Your task to perform on an android device: Go to CNN.com Image 0: 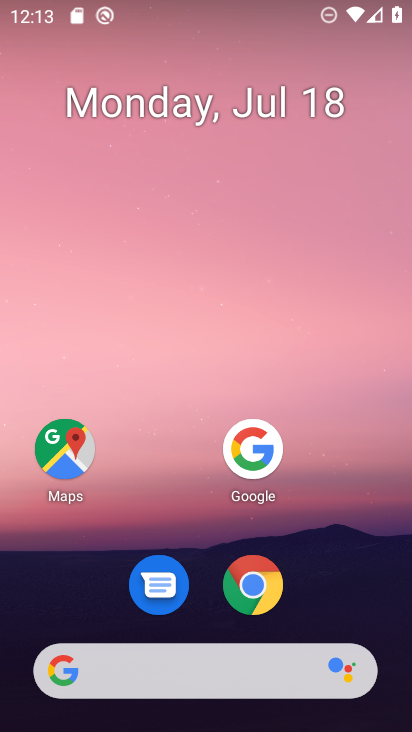
Step 0: click (268, 585)
Your task to perform on an android device: Go to CNN.com Image 1: 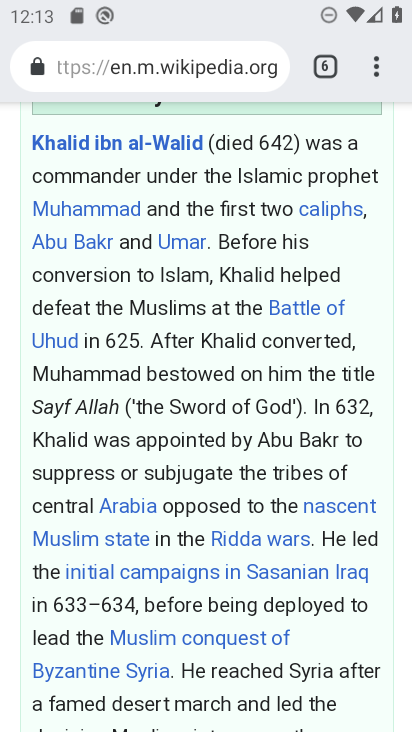
Step 1: drag from (373, 66) to (182, 136)
Your task to perform on an android device: Go to CNN.com Image 2: 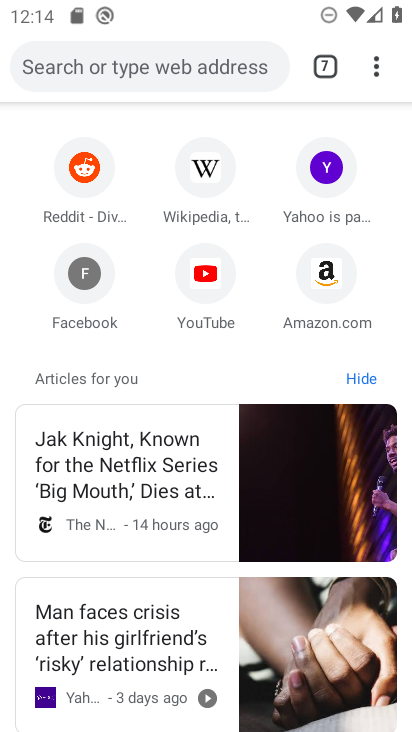
Step 2: click (175, 71)
Your task to perform on an android device: Go to CNN.com Image 3: 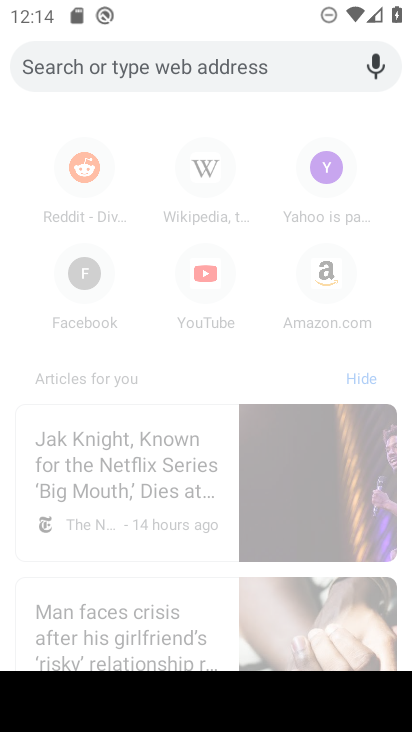
Step 3: type "cnn.com"
Your task to perform on an android device: Go to CNN.com Image 4: 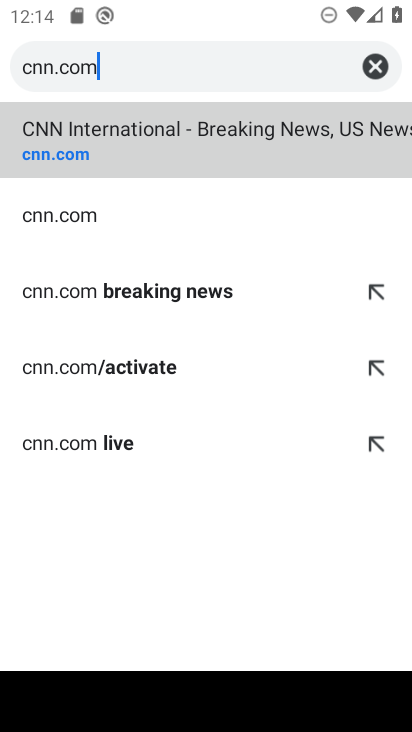
Step 4: click (229, 163)
Your task to perform on an android device: Go to CNN.com Image 5: 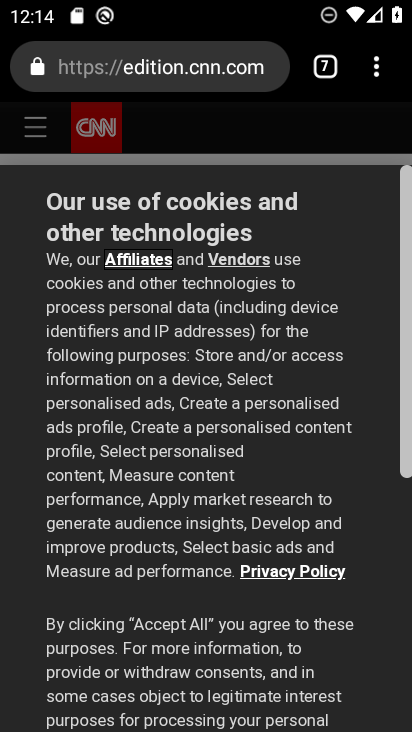
Step 5: drag from (166, 633) to (360, 249)
Your task to perform on an android device: Go to CNN.com Image 6: 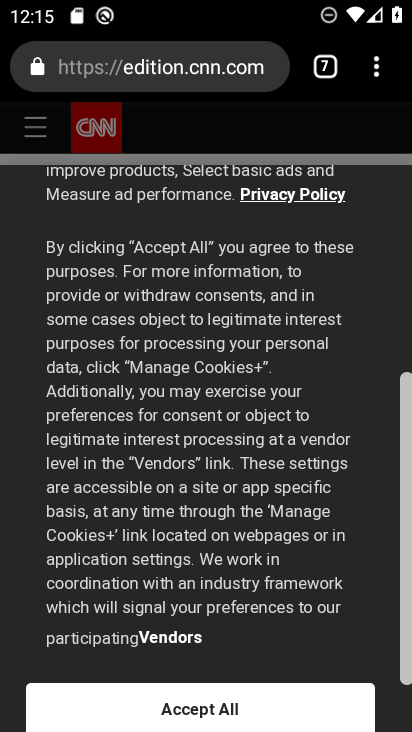
Step 6: drag from (193, 437) to (310, 286)
Your task to perform on an android device: Go to CNN.com Image 7: 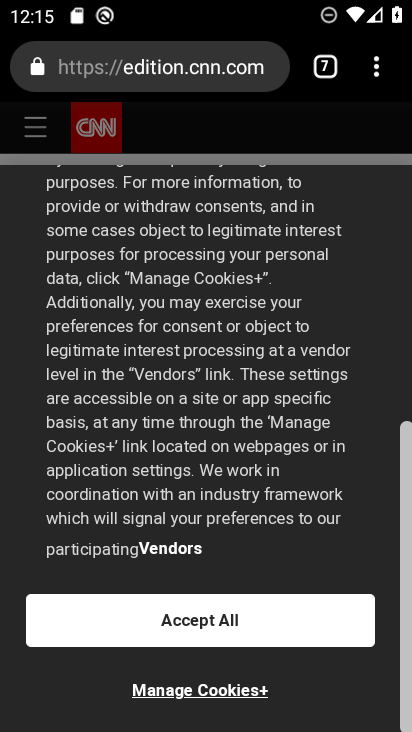
Step 7: click (182, 614)
Your task to perform on an android device: Go to CNN.com Image 8: 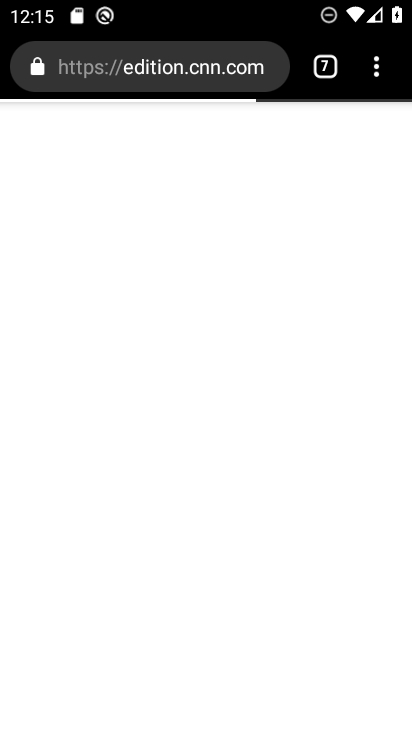
Step 8: task complete